Your task to perform on an android device: manage bookmarks in the chrome app Image 0: 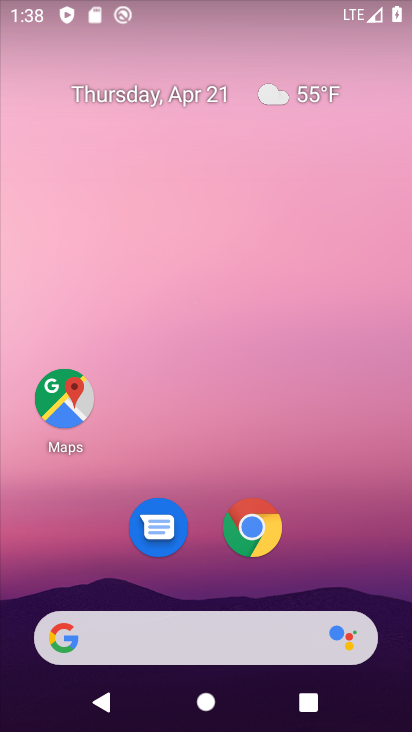
Step 0: drag from (354, 543) to (359, 148)
Your task to perform on an android device: manage bookmarks in the chrome app Image 1: 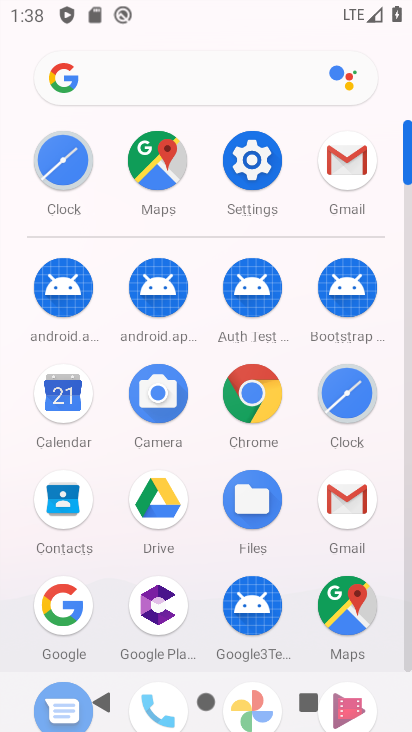
Step 1: click (257, 404)
Your task to perform on an android device: manage bookmarks in the chrome app Image 2: 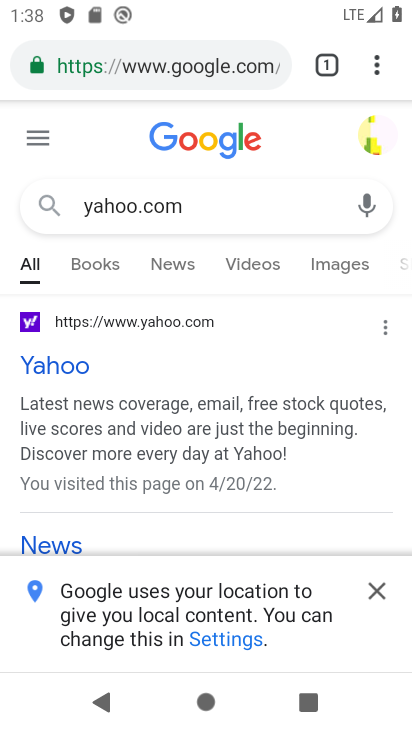
Step 2: click (378, 74)
Your task to perform on an android device: manage bookmarks in the chrome app Image 3: 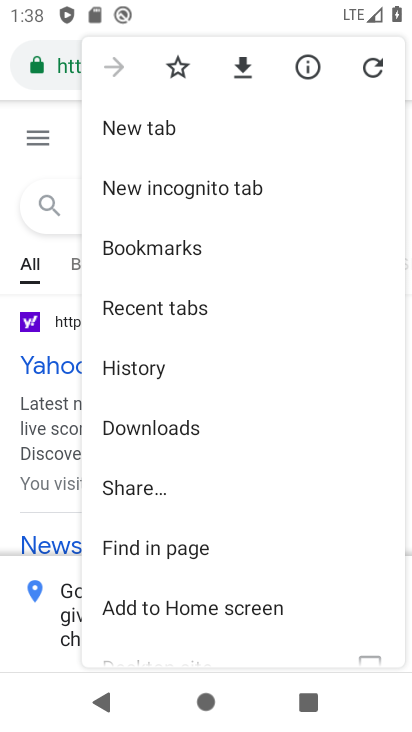
Step 3: drag from (313, 483) to (324, 232)
Your task to perform on an android device: manage bookmarks in the chrome app Image 4: 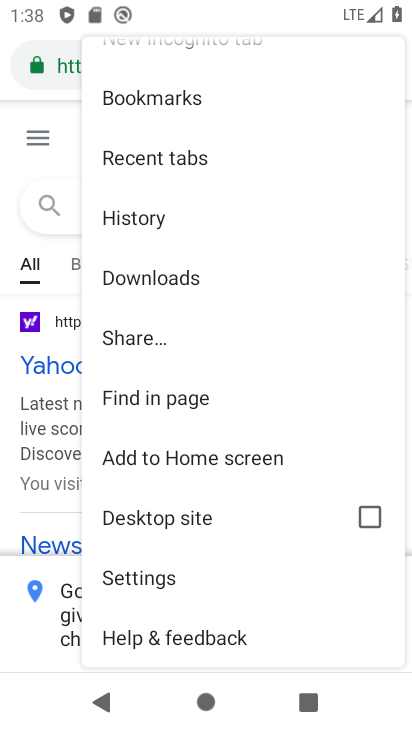
Step 4: drag from (332, 210) to (331, 363)
Your task to perform on an android device: manage bookmarks in the chrome app Image 5: 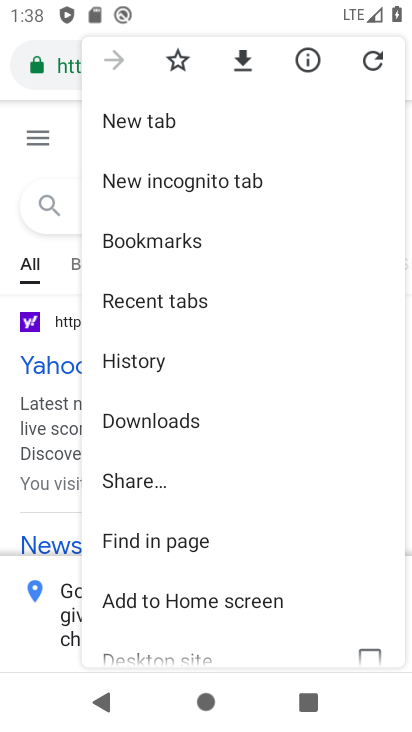
Step 5: click (174, 250)
Your task to perform on an android device: manage bookmarks in the chrome app Image 6: 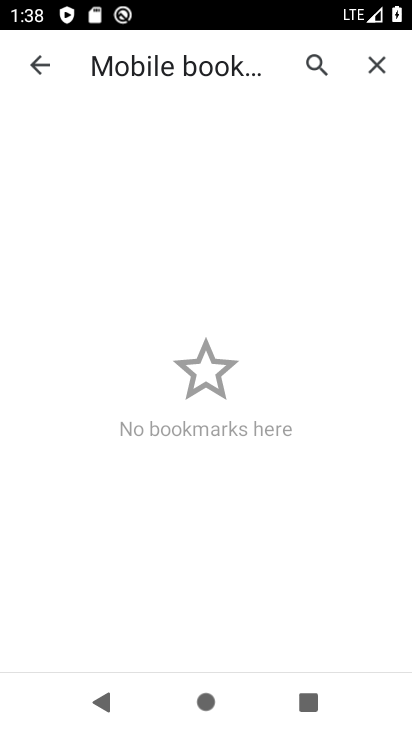
Step 6: task complete